Your task to perform on an android device: What is the news today? Image 0: 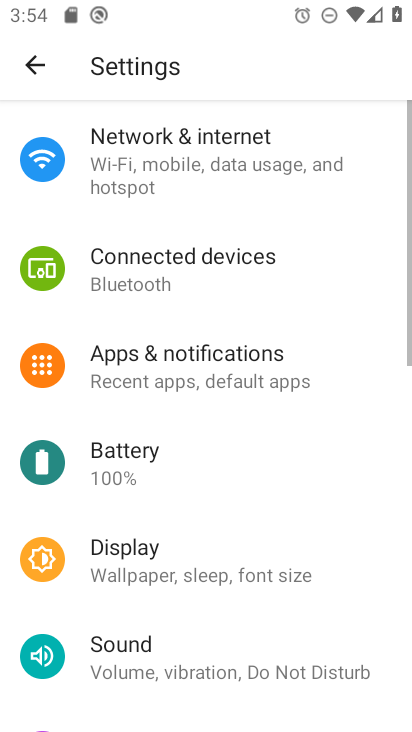
Step 0: press home button
Your task to perform on an android device: What is the news today? Image 1: 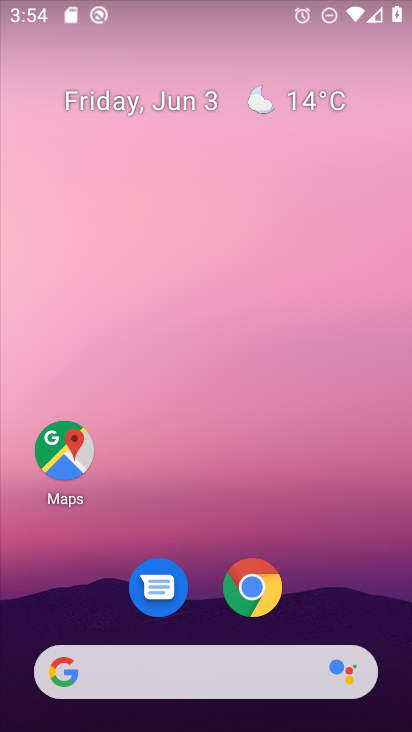
Step 1: task complete